Your task to perform on an android device: toggle location history Image 0: 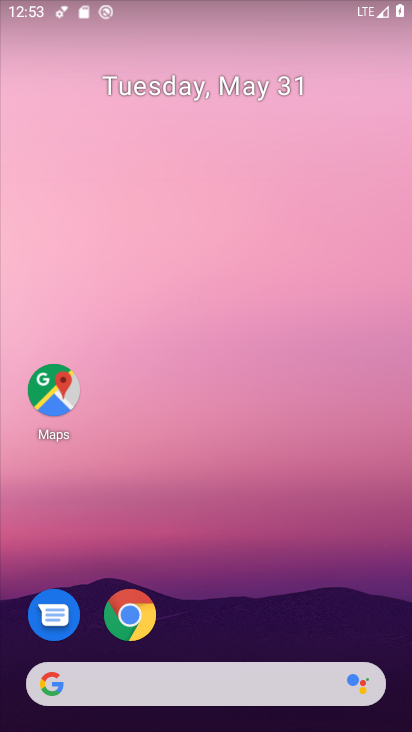
Step 0: drag from (224, 627) to (253, 499)
Your task to perform on an android device: toggle location history Image 1: 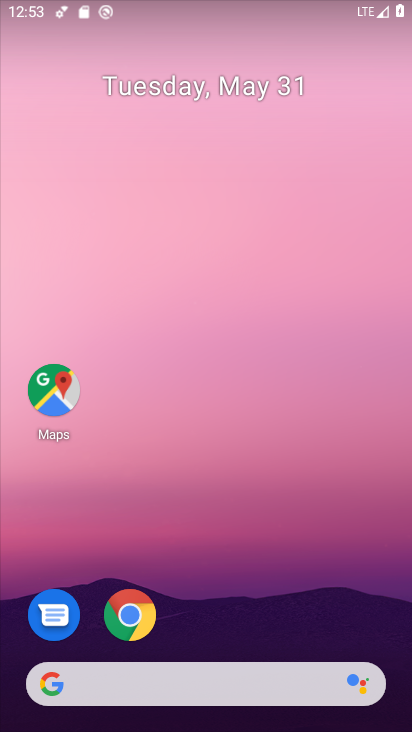
Step 1: drag from (244, 629) to (216, 15)
Your task to perform on an android device: toggle location history Image 2: 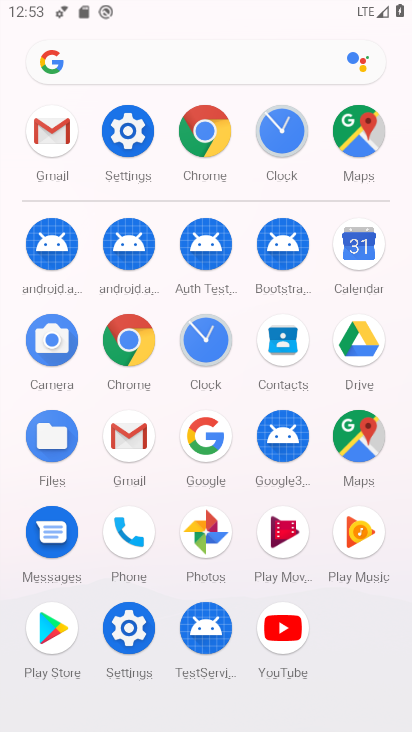
Step 2: click (137, 159)
Your task to perform on an android device: toggle location history Image 3: 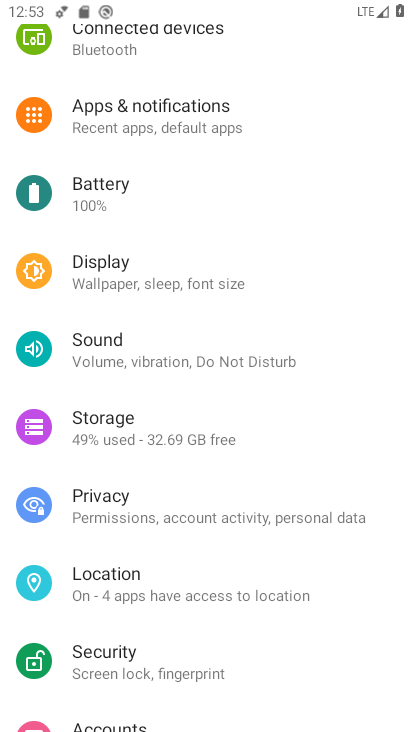
Step 3: click (152, 598)
Your task to perform on an android device: toggle location history Image 4: 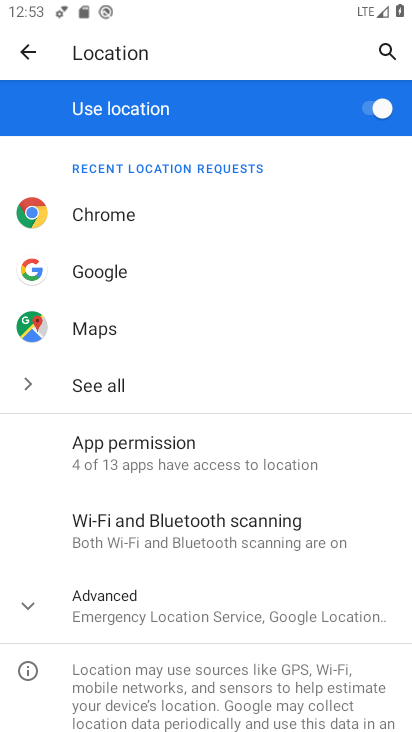
Step 4: click (112, 605)
Your task to perform on an android device: toggle location history Image 5: 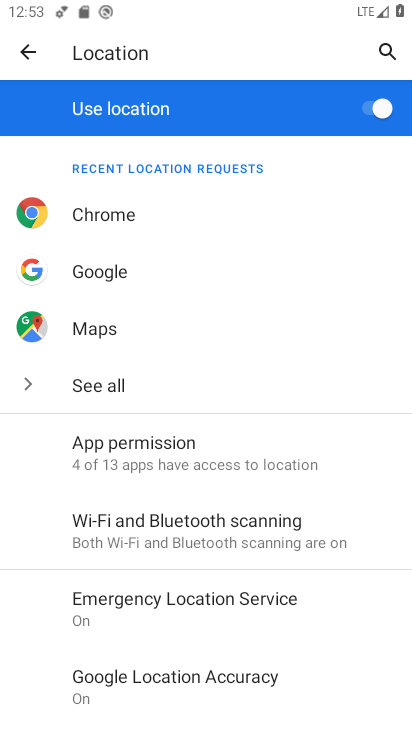
Step 5: drag from (185, 665) to (209, 491)
Your task to perform on an android device: toggle location history Image 6: 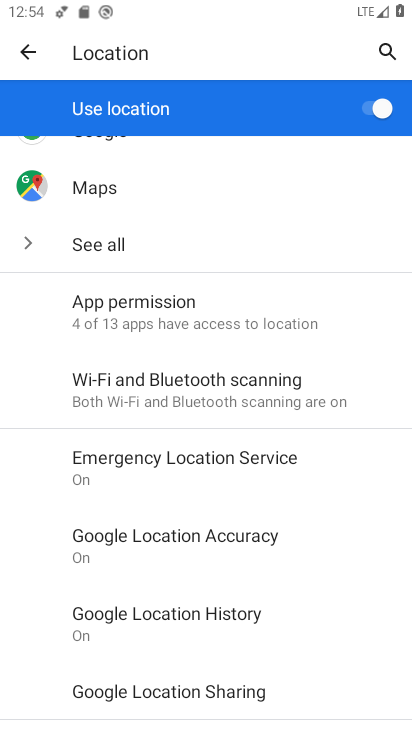
Step 6: click (186, 619)
Your task to perform on an android device: toggle location history Image 7: 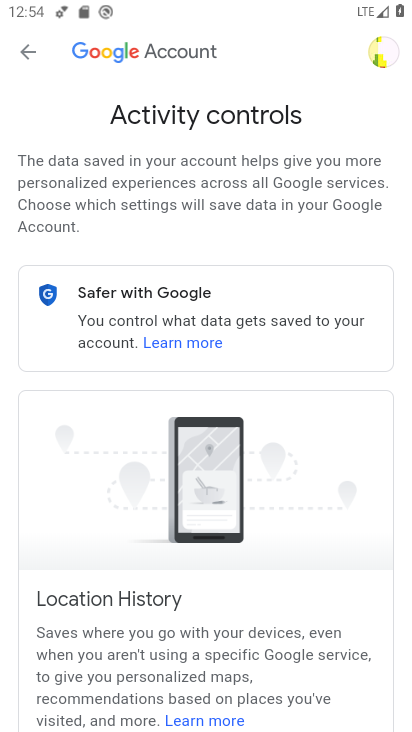
Step 7: drag from (180, 635) to (229, 151)
Your task to perform on an android device: toggle location history Image 8: 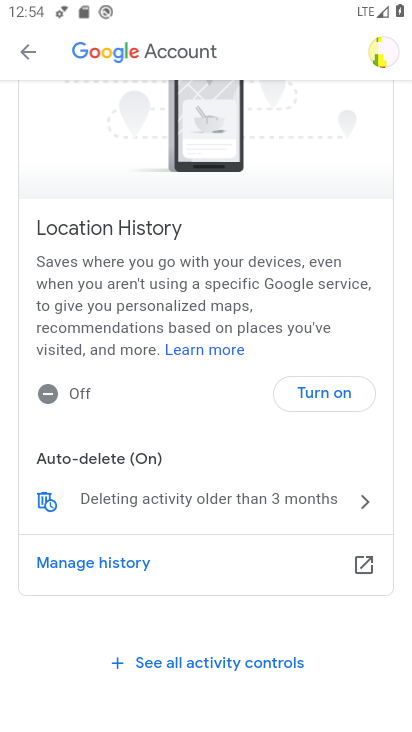
Step 8: click (331, 401)
Your task to perform on an android device: toggle location history Image 9: 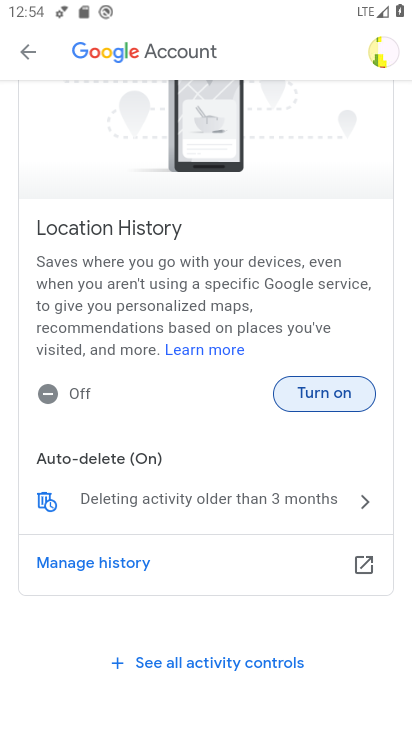
Step 9: click (306, 396)
Your task to perform on an android device: toggle location history Image 10: 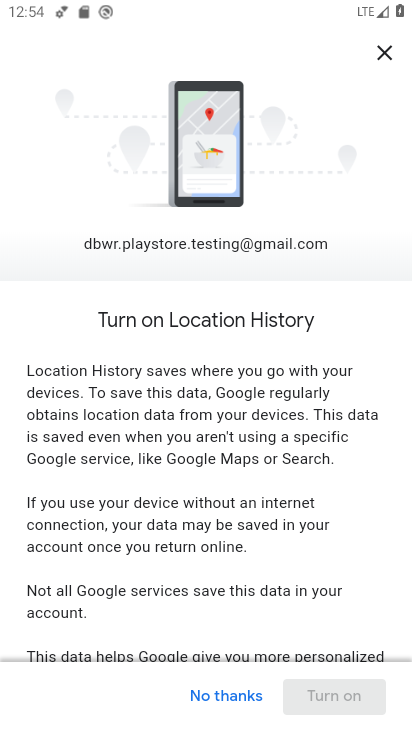
Step 10: drag from (244, 606) to (300, 40)
Your task to perform on an android device: toggle location history Image 11: 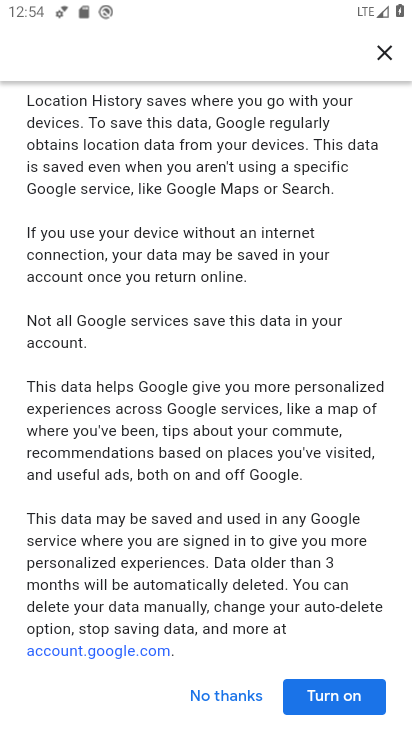
Step 11: drag from (193, 489) to (213, 153)
Your task to perform on an android device: toggle location history Image 12: 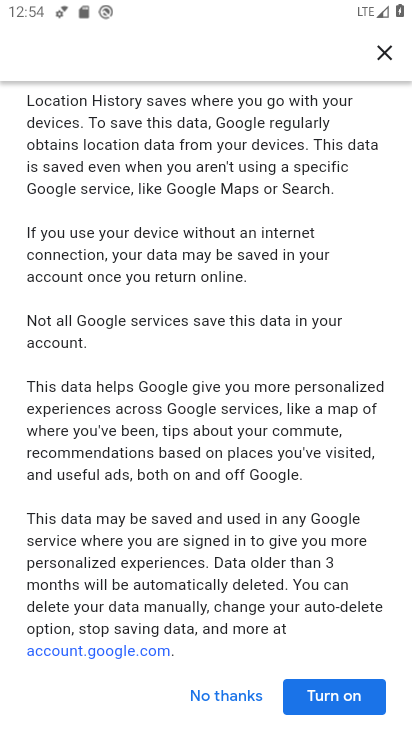
Step 12: click (362, 710)
Your task to perform on an android device: toggle location history Image 13: 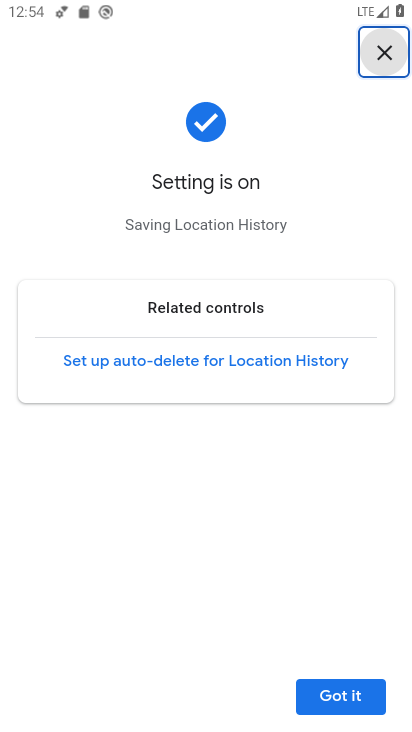
Step 13: click (346, 693)
Your task to perform on an android device: toggle location history Image 14: 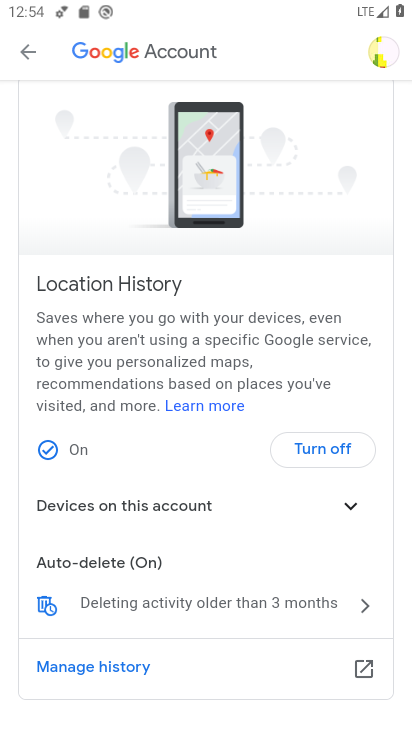
Step 14: task complete